Your task to perform on an android device: Check the news Image 0: 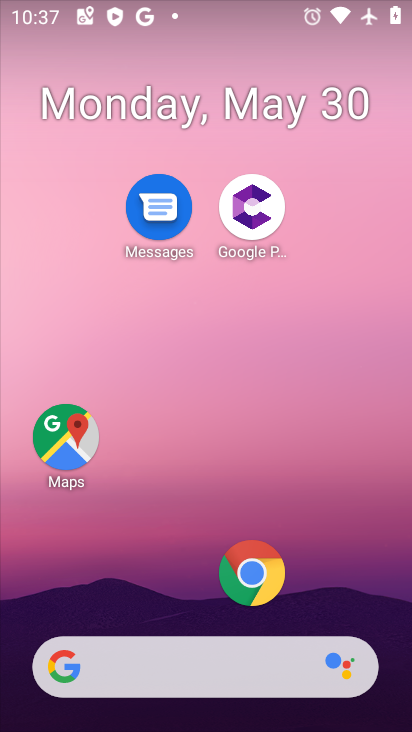
Step 0: drag from (165, 679) to (197, 4)
Your task to perform on an android device: Check the news Image 1: 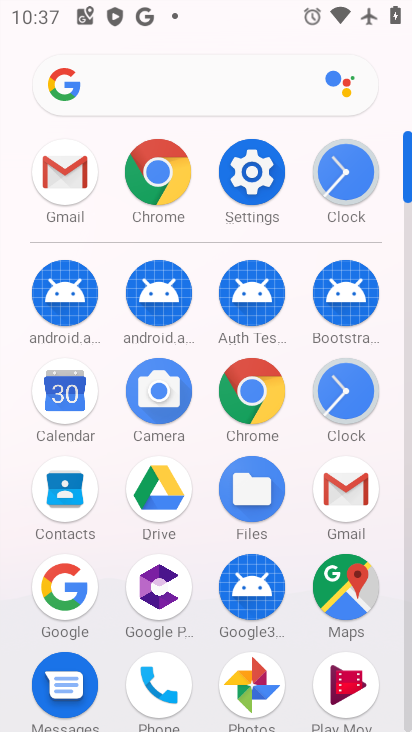
Step 1: click (84, 591)
Your task to perform on an android device: Check the news Image 2: 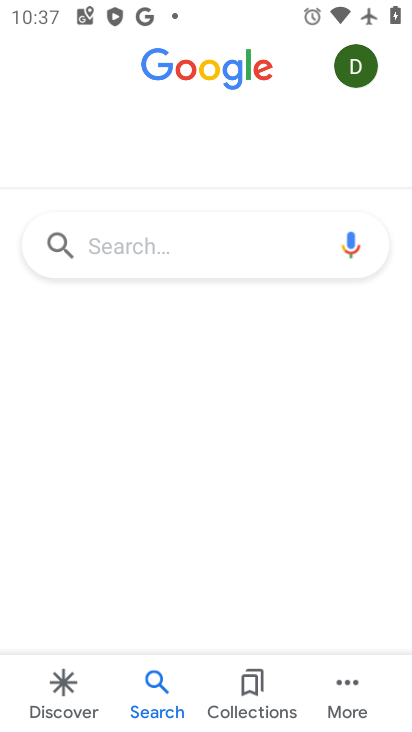
Step 2: click (202, 241)
Your task to perform on an android device: Check the news Image 3: 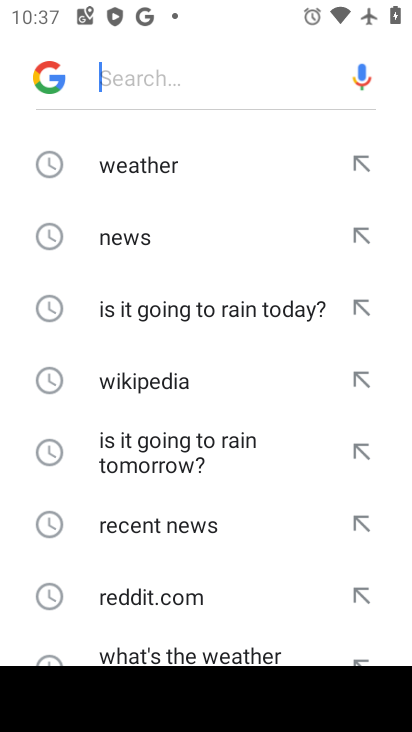
Step 3: click (202, 241)
Your task to perform on an android device: Check the news Image 4: 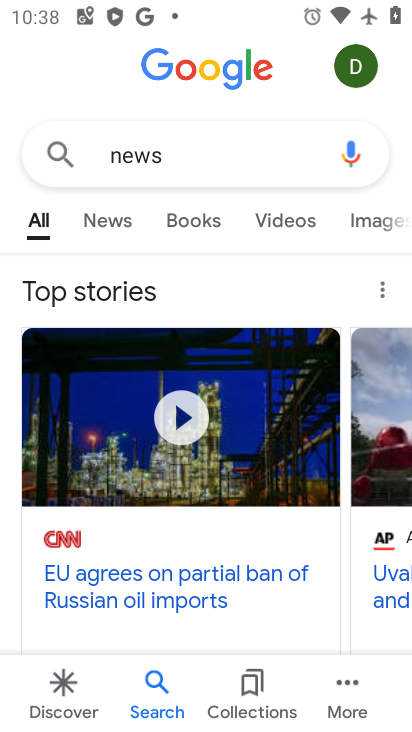
Step 4: click (117, 215)
Your task to perform on an android device: Check the news Image 5: 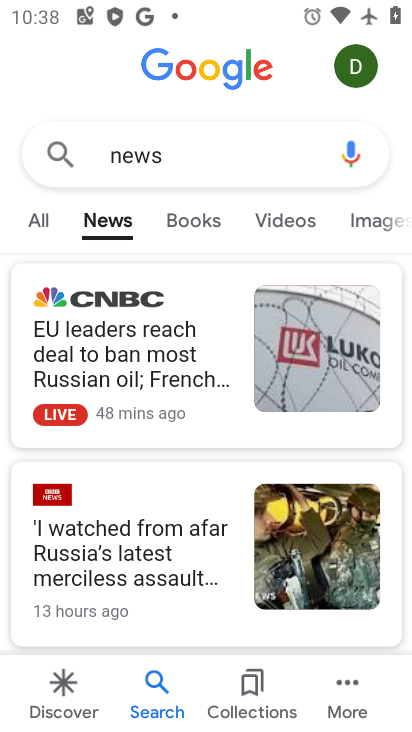
Step 5: task complete